Your task to perform on an android device: turn on showing notifications on the lock screen Image 0: 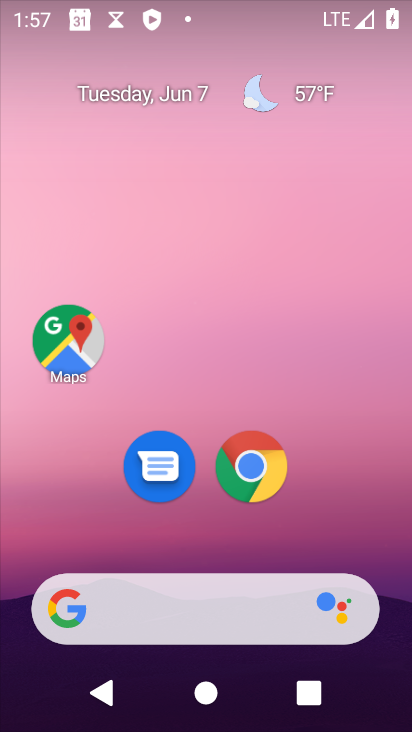
Step 0: drag from (224, 464) to (287, 19)
Your task to perform on an android device: turn on showing notifications on the lock screen Image 1: 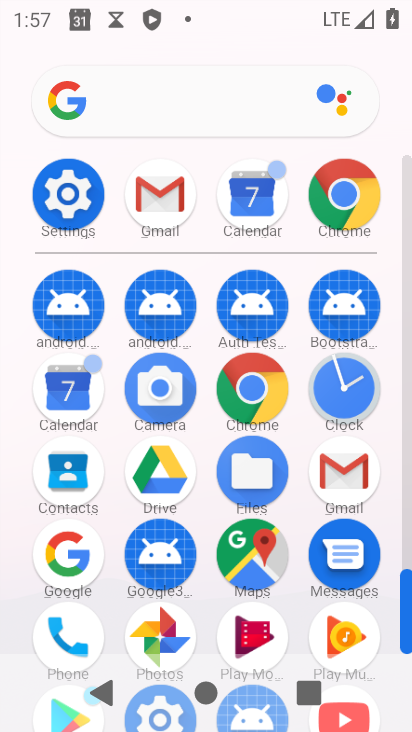
Step 1: click (84, 176)
Your task to perform on an android device: turn on showing notifications on the lock screen Image 2: 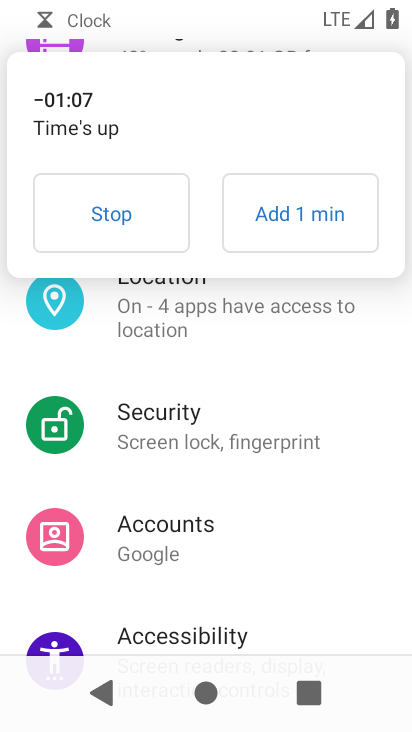
Step 2: click (121, 217)
Your task to perform on an android device: turn on showing notifications on the lock screen Image 3: 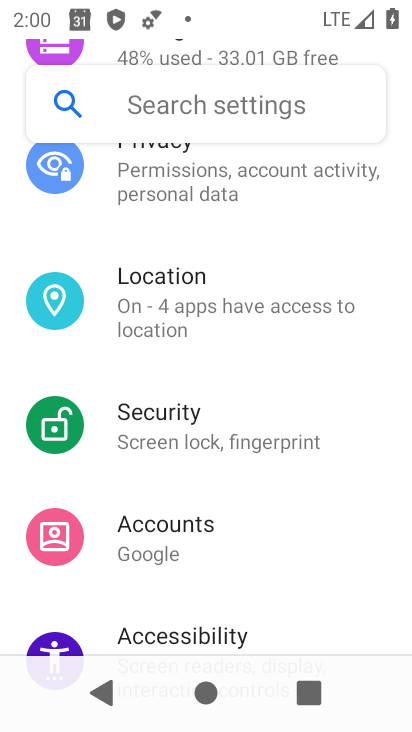
Step 3: drag from (212, 216) to (212, 603)
Your task to perform on an android device: turn on showing notifications on the lock screen Image 4: 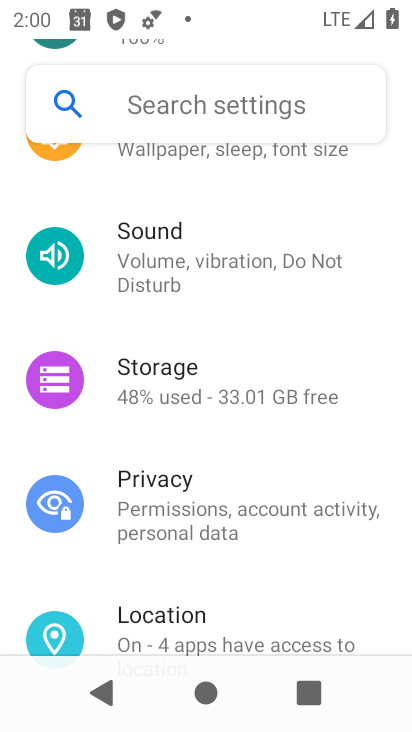
Step 4: drag from (267, 290) to (223, 712)
Your task to perform on an android device: turn on showing notifications on the lock screen Image 5: 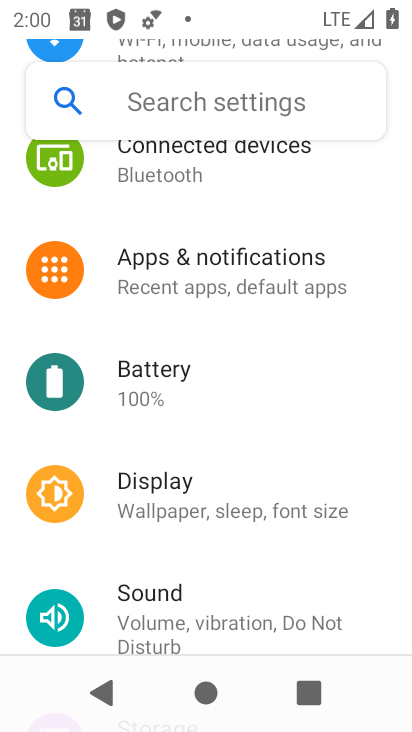
Step 5: drag from (238, 274) to (188, 729)
Your task to perform on an android device: turn on showing notifications on the lock screen Image 6: 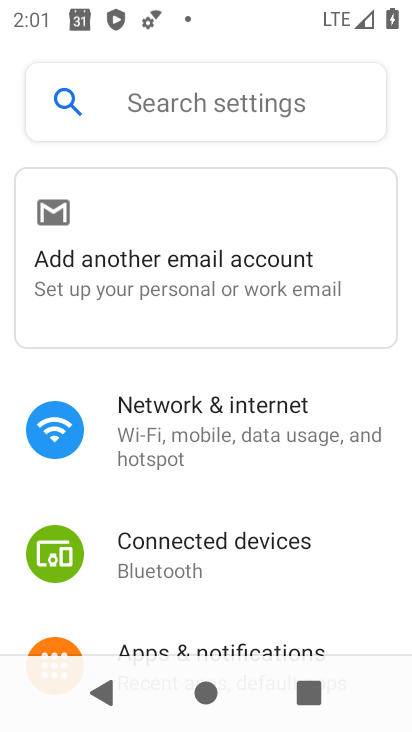
Step 6: drag from (211, 607) to (244, 356)
Your task to perform on an android device: turn on showing notifications on the lock screen Image 7: 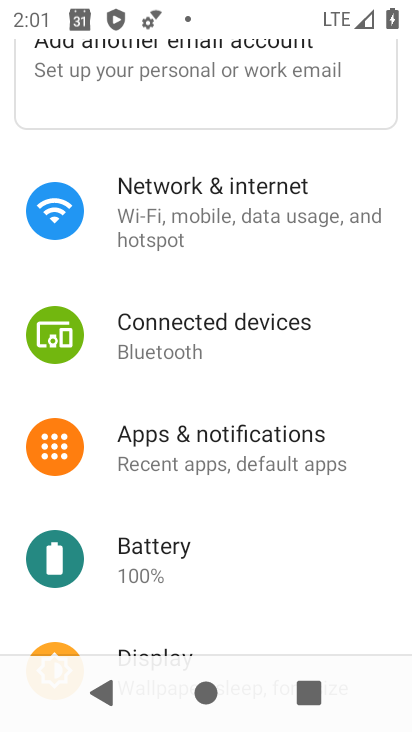
Step 7: click (204, 448)
Your task to perform on an android device: turn on showing notifications on the lock screen Image 8: 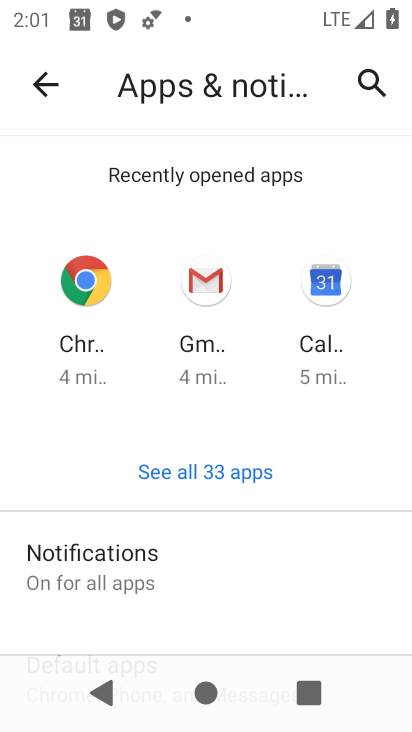
Step 8: drag from (179, 576) to (242, 91)
Your task to perform on an android device: turn on showing notifications on the lock screen Image 9: 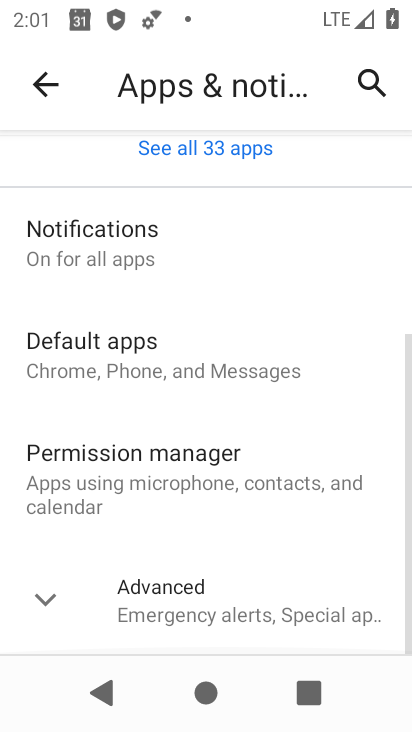
Step 9: click (177, 244)
Your task to perform on an android device: turn on showing notifications on the lock screen Image 10: 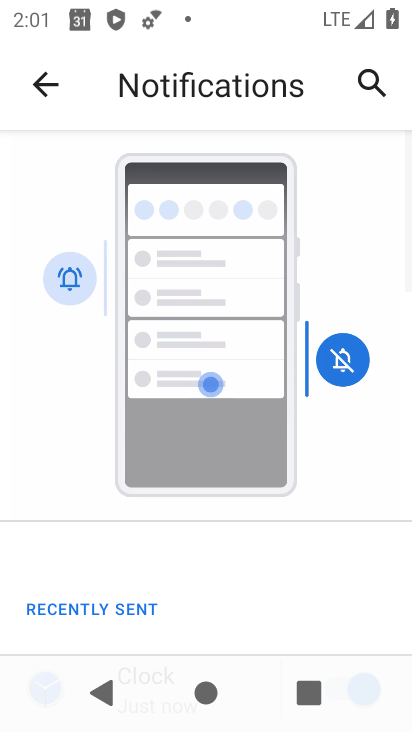
Step 10: drag from (175, 623) to (247, 140)
Your task to perform on an android device: turn on showing notifications on the lock screen Image 11: 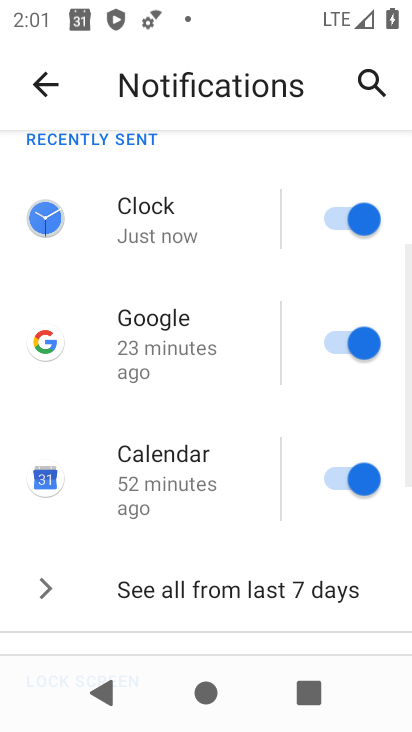
Step 11: drag from (215, 516) to (222, 0)
Your task to perform on an android device: turn on showing notifications on the lock screen Image 12: 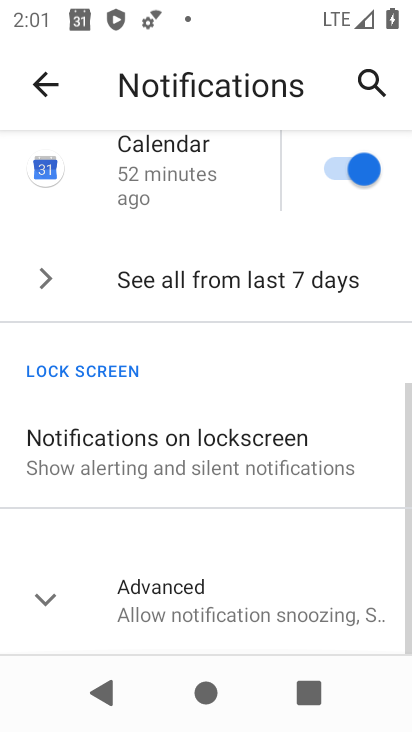
Step 12: click (214, 455)
Your task to perform on an android device: turn on showing notifications on the lock screen Image 13: 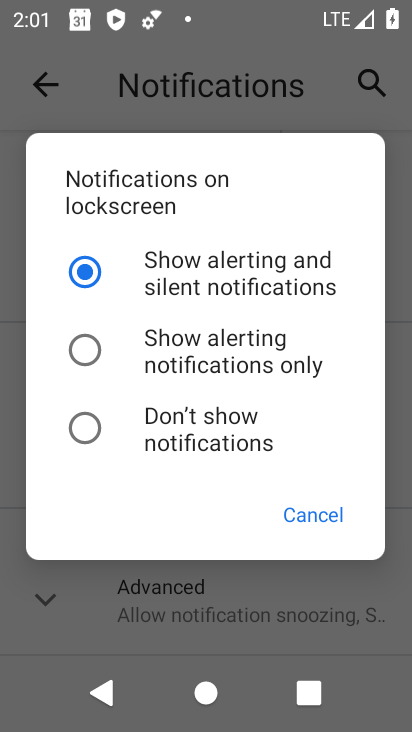
Step 13: task complete